Your task to perform on an android device: turn on airplane mode Image 0: 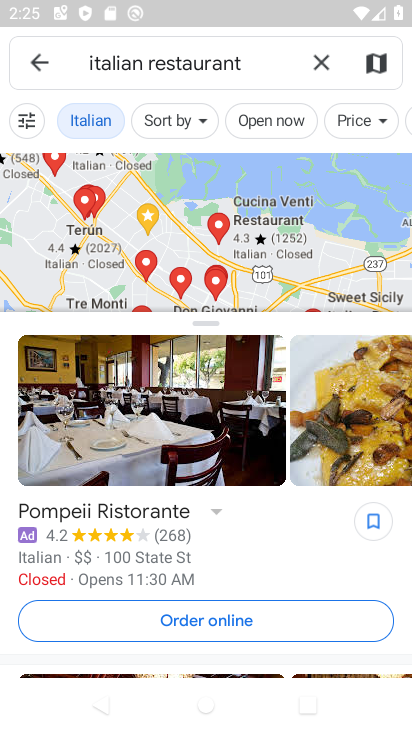
Step 0: press home button
Your task to perform on an android device: turn on airplane mode Image 1: 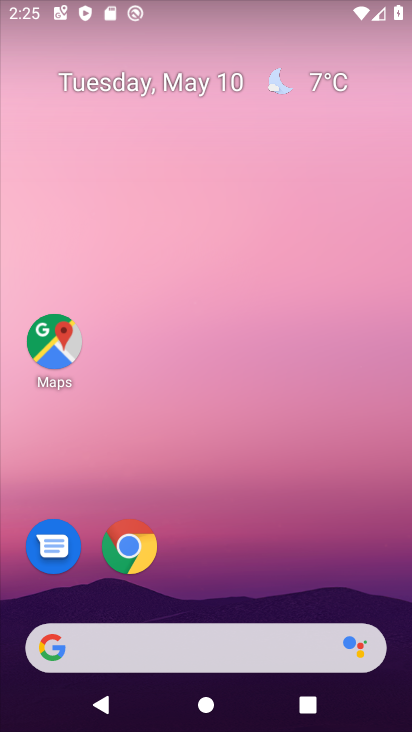
Step 1: drag from (309, 512) to (286, 7)
Your task to perform on an android device: turn on airplane mode Image 2: 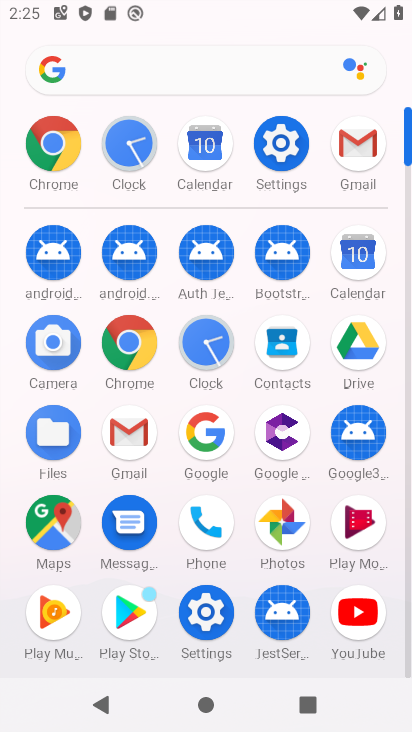
Step 2: click (294, 153)
Your task to perform on an android device: turn on airplane mode Image 3: 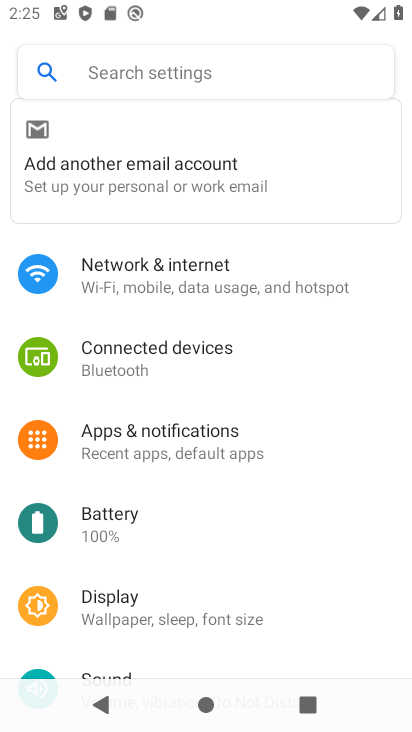
Step 3: click (200, 279)
Your task to perform on an android device: turn on airplane mode Image 4: 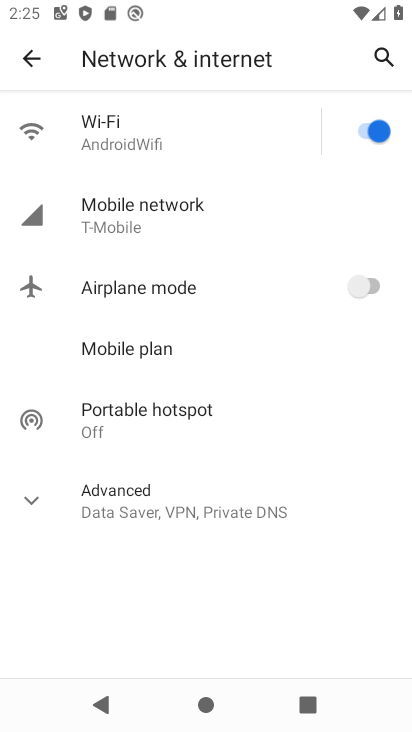
Step 4: click (372, 291)
Your task to perform on an android device: turn on airplane mode Image 5: 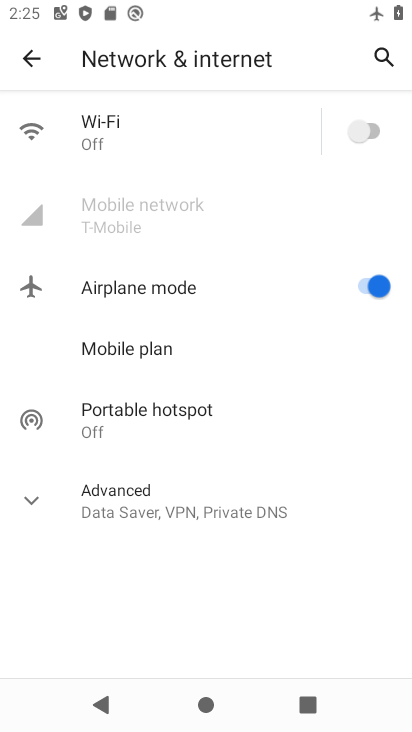
Step 5: task complete